Your task to perform on an android device: Go to Amazon Image 0: 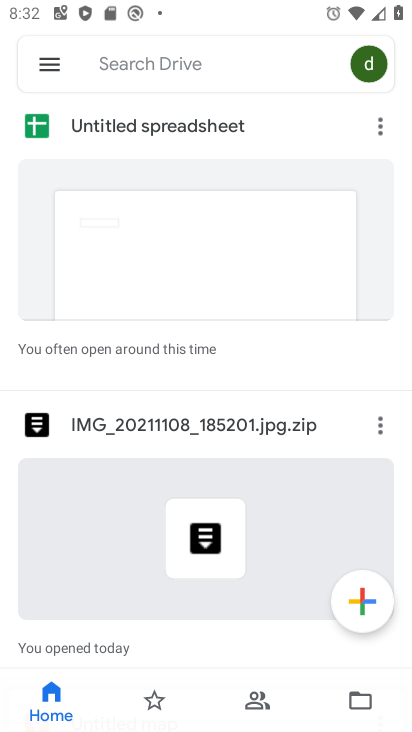
Step 0: press home button
Your task to perform on an android device: Go to Amazon Image 1: 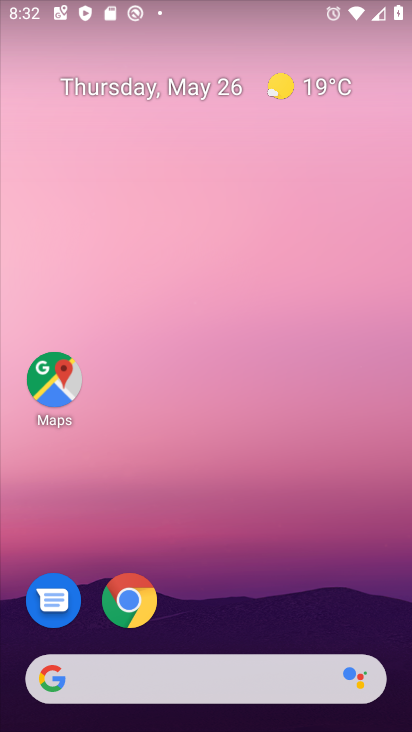
Step 1: click (52, 682)
Your task to perform on an android device: Go to Amazon Image 2: 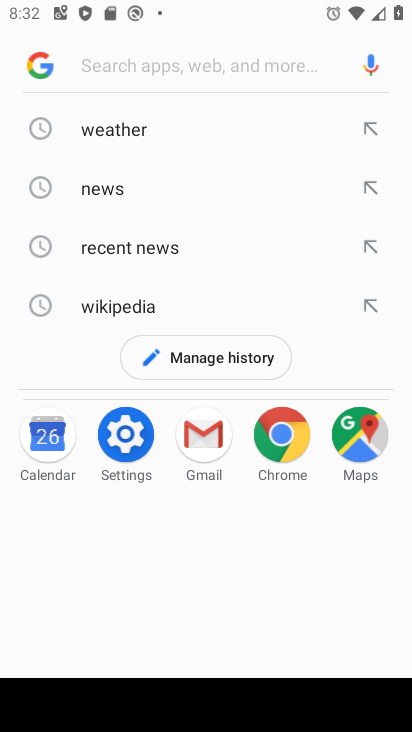
Step 2: type "Amazon"
Your task to perform on an android device: Go to Amazon Image 3: 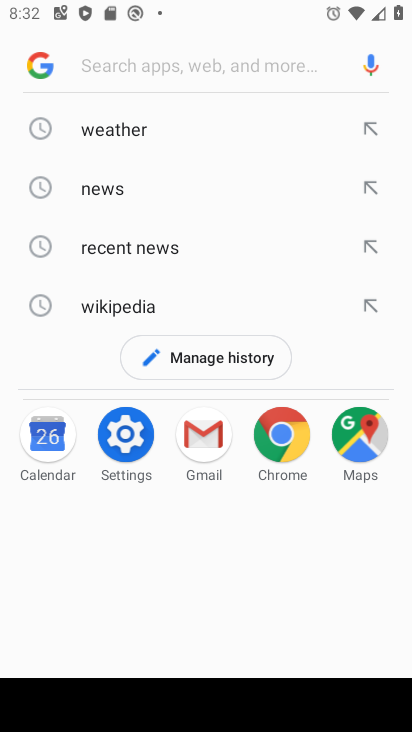
Step 3: click (191, 74)
Your task to perform on an android device: Go to Amazon Image 4: 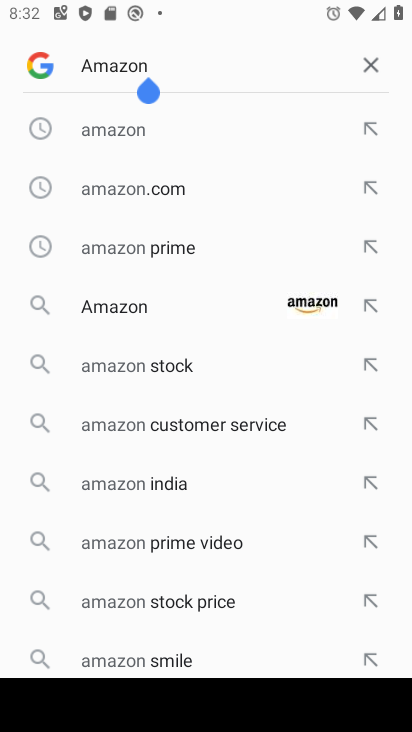
Step 4: click (128, 145)
Your task to perform on an android device: Go to Amazon Image 5: 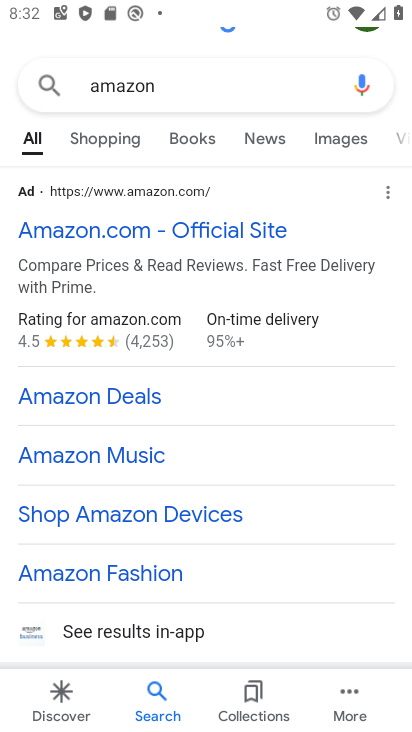
Step 5: click (200, 232)
Your task to perform on an android device: Go to Amazon Image 6: 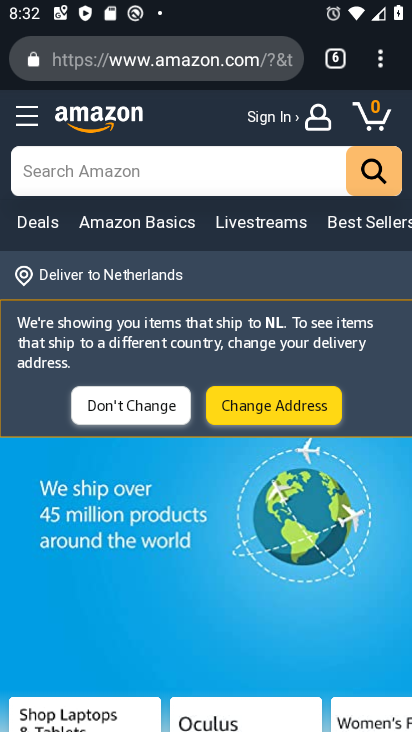
Step 6: task complete